Your task to perform on an android device: delete location history Image 0: 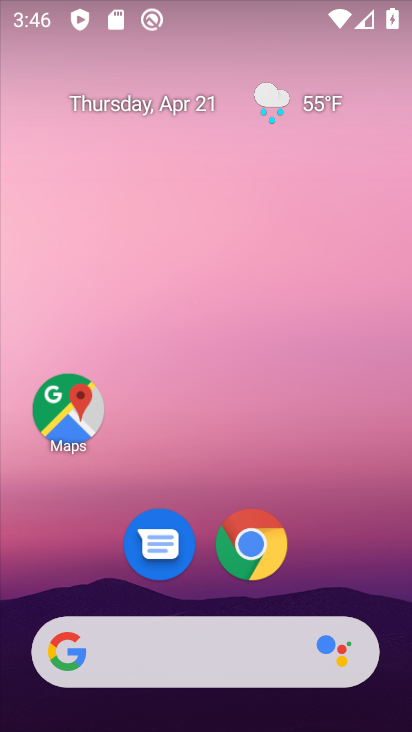
Step 0: drag from (214, 657) to (178, 91)
Your task to perform on an android device: delete location history Image 1: 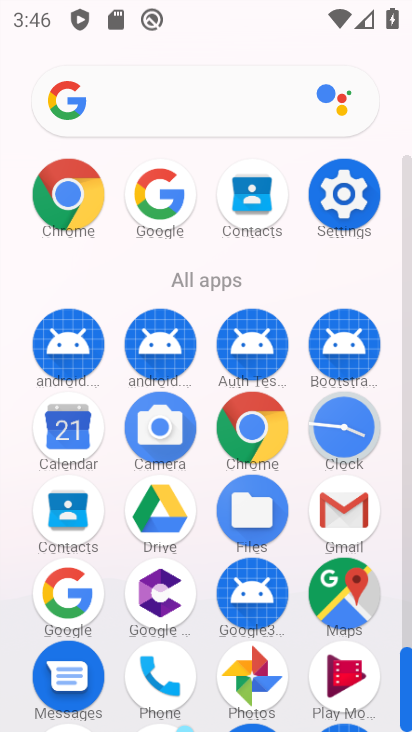
Step 1: click (352, 587)
Your task to perform on an android device: delete location history Image 2: 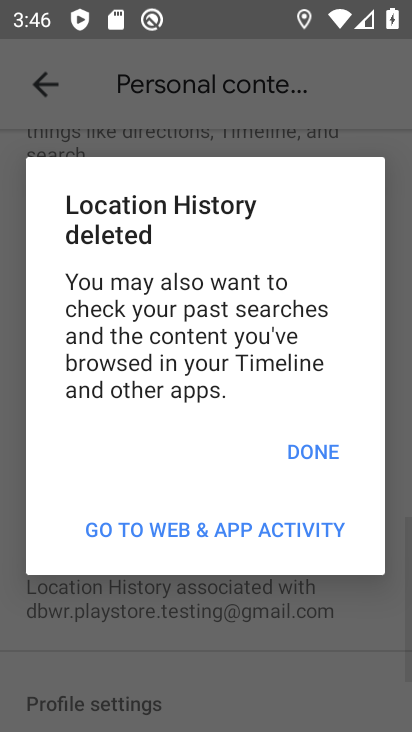
Step 2: click (320, 450)
Your task to perform on an android device: delete location history Image 3: 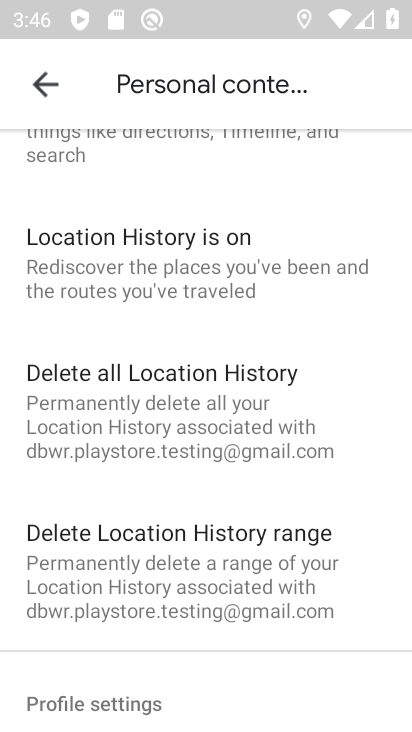
Step 3: click (243, 416)
Your task to perform on an android device: delete location history Image 4: 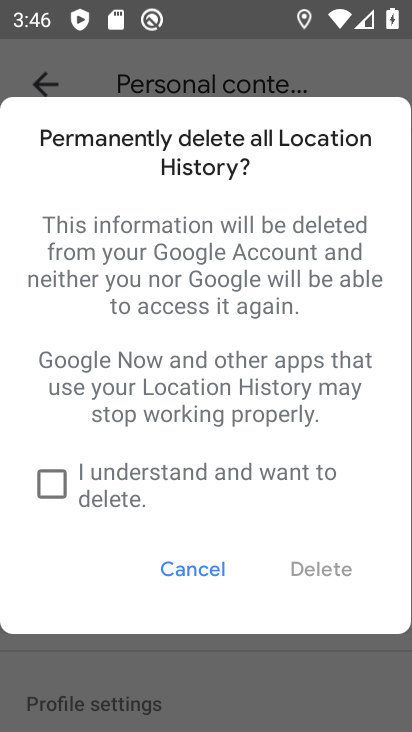
Step 4: click (130, 465)
Your task to perform on an android device: delete location history Image 5: 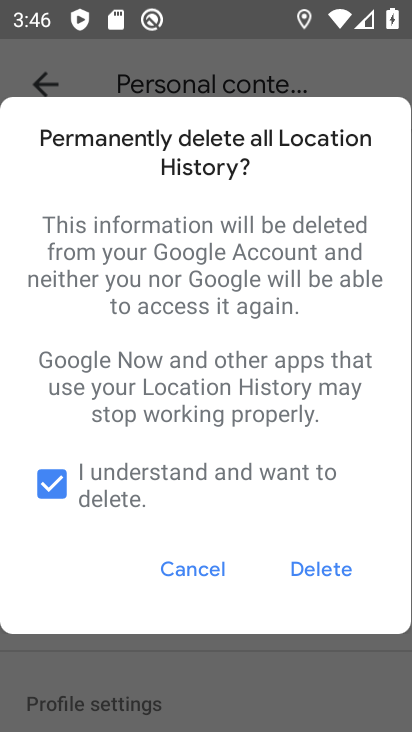
Step 5: click (332, 564)
Your task to perform on an android device: delete location history Image 6: 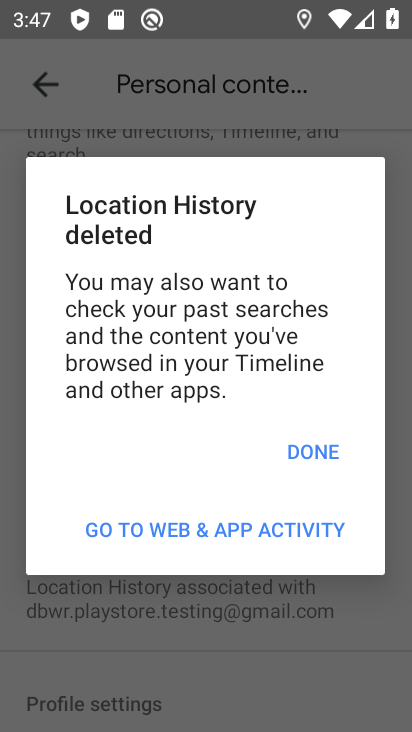
Step 6: click (318, 432)
Your task to perform on an android device: delete location history Image 7: 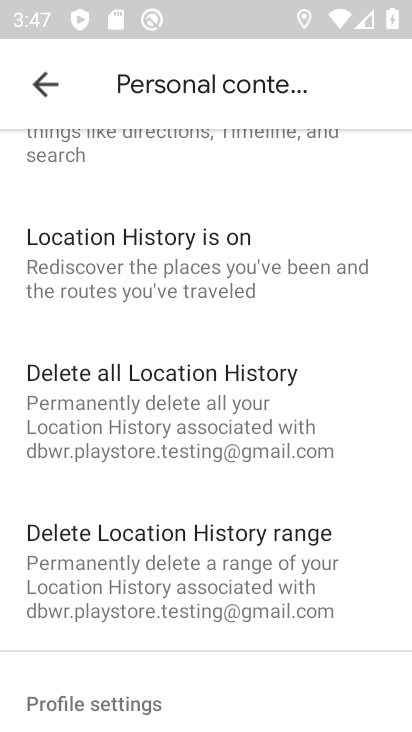
Step 7: task complete